Your task to perform on an android device: delete the emails in spam in the gmail app Image 0: 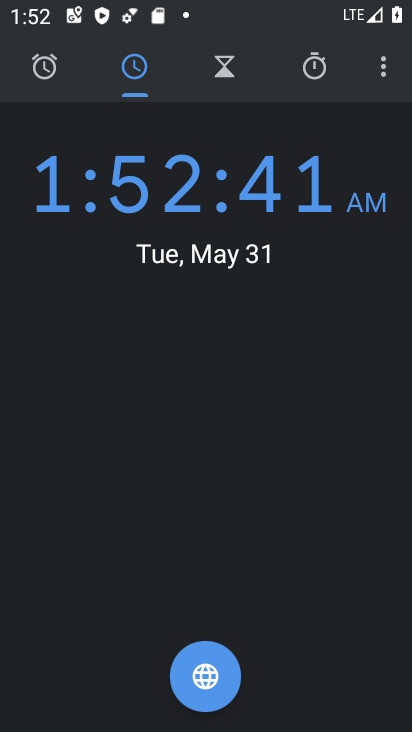
Step 0: press home button
Your task to perform on an android device: delete the emails in spam in the gmail app Image 1: 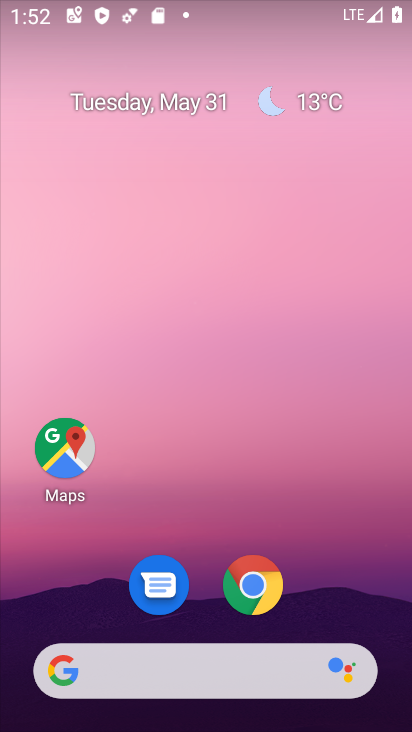
Step 1: drag from (232, 477) to (246, 33)
Your task to perform on an android device: delete the emails in spam in the gmail app Image 2: 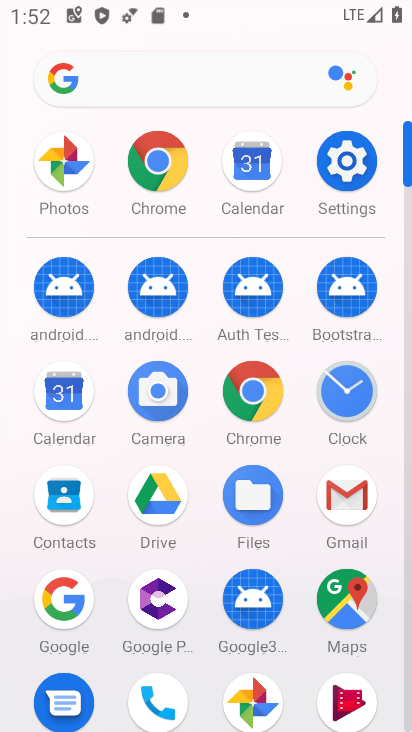
Step 2: click (343, 486)
Your task to perform on an android device: delete the emails in spam in the gmail app Image 3: 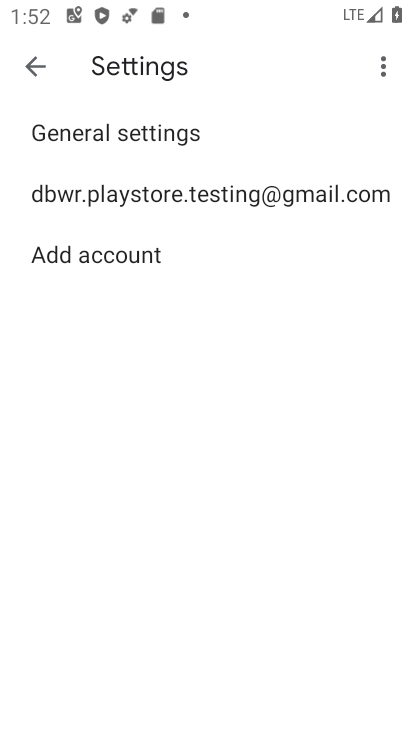
Step 3: click (42, 66)
Your task to perform on an android device: delete the emails in spam in the gmail app Image 4: 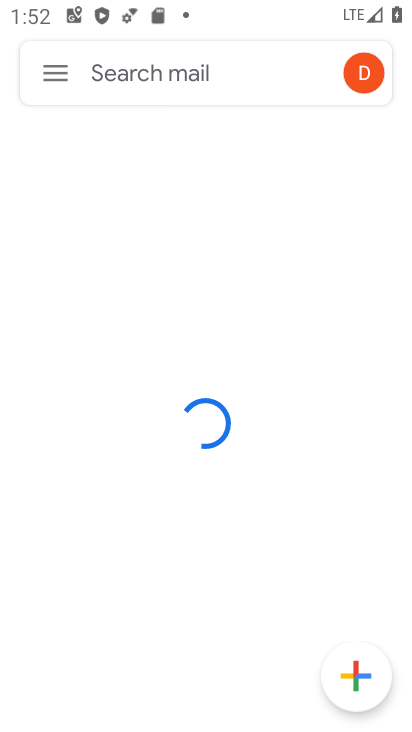
Step 4: click (59, 64)
Your task to perform on an android device: delete the emails in spam in the gmail app Image 5: 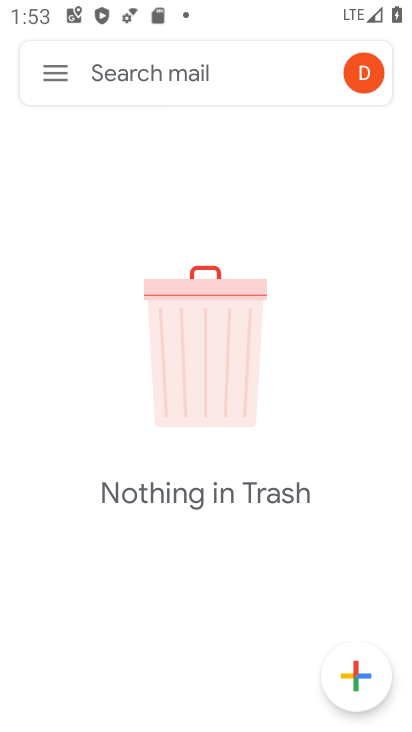
Step 5: click (61, 69)
Your task to perform on an android device: delete the emails in spam in the gmail app Image 6: 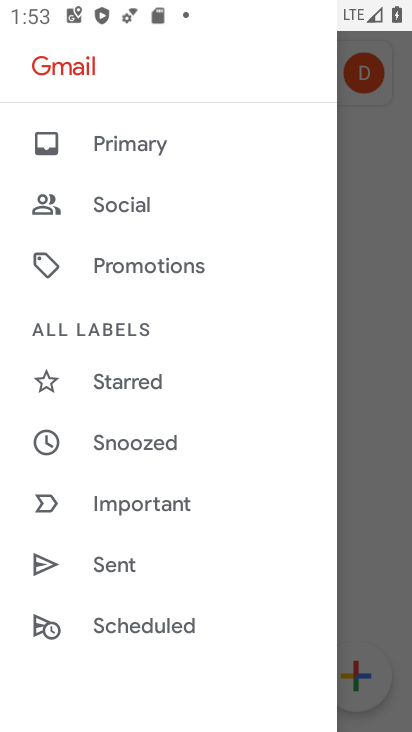
Step 6: drag from (168, 359) to (194, 521)
Your task to perform on an android device: delete the emails in spam in the gmail app Image 7: 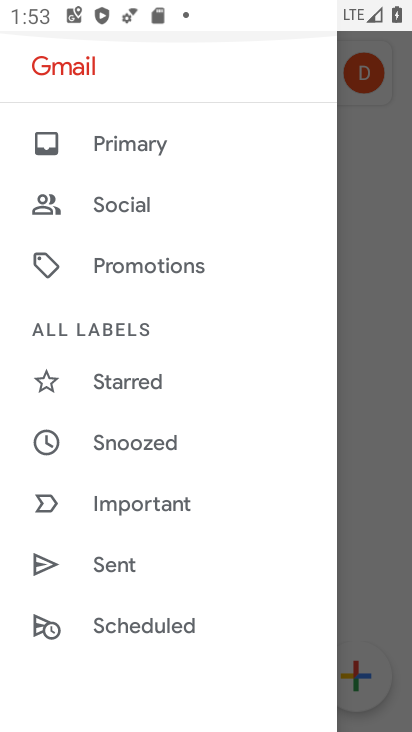
Step 7: drag from (189, 491) to (170, 72)
Your task to perform on an android device: delete the emails in spam in the gmail app Image 8: 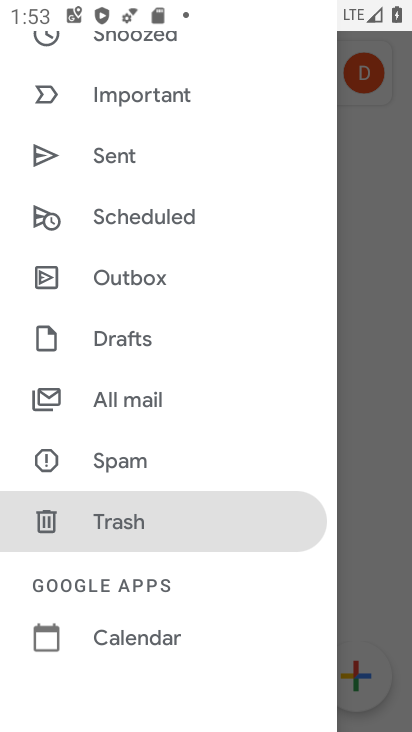
Step 8: click (138, 445)
Your task to perform on an android device: delete the emails in spam in the gmail app Image 9: 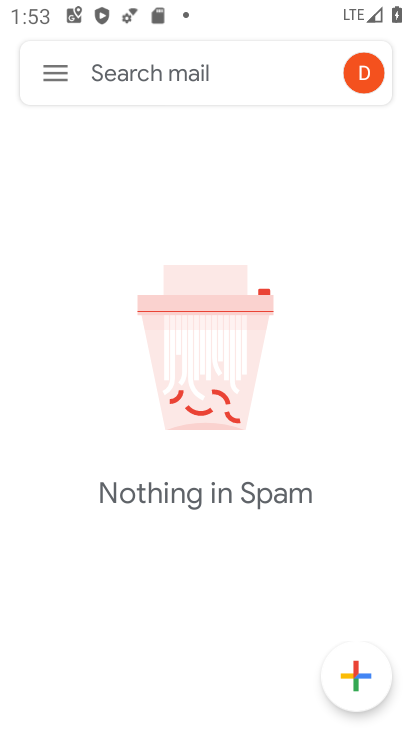
Step 9: task complete